Your task to perform on an android device: When is my next meeting? Image 0: 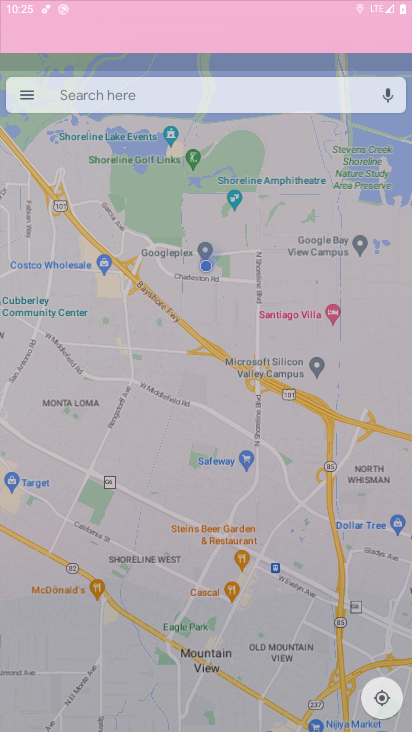
Step 0: press home button
Your task to perform on an android device: When is my next meeting? Image 1: 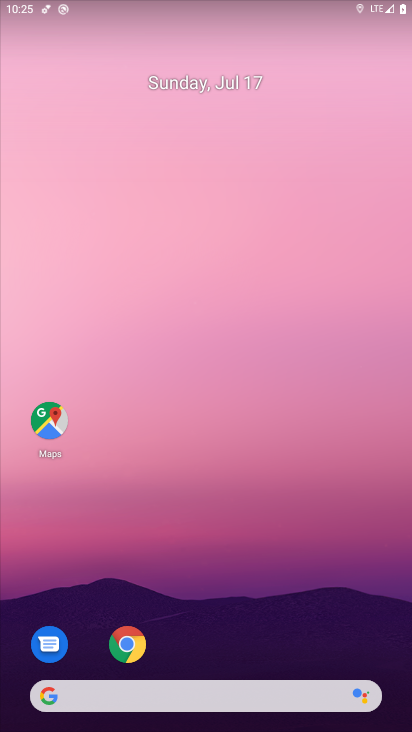
Step 1: drag from (188, 650) to (158, 174)
Your task to perform on an android device: When is my next meeting? Image 2: 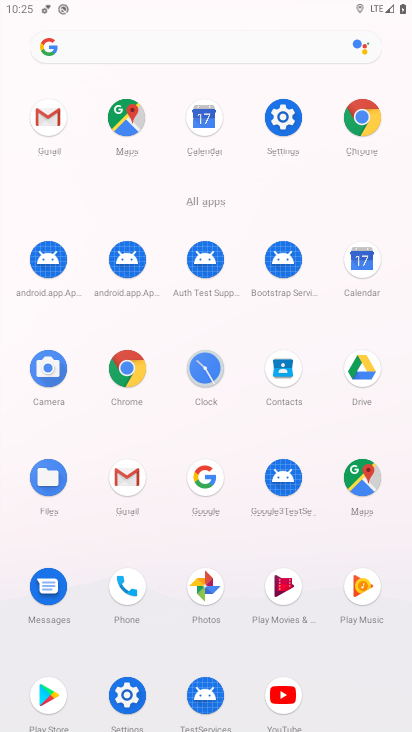
Step 2: click (362, 260)
Your task to perform on an android device: When is my next meeting? Image 3: 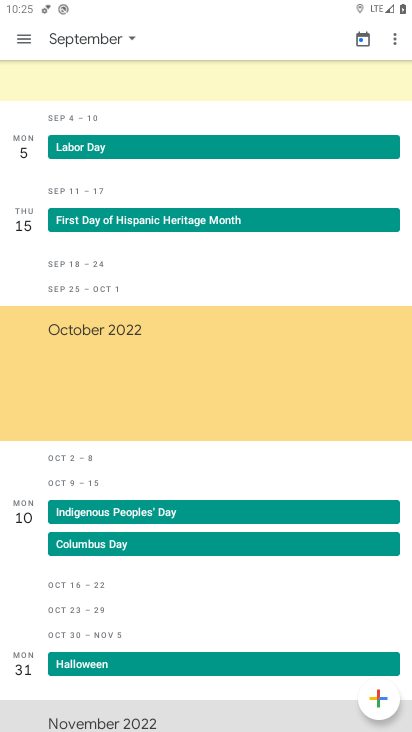
Step 3: click (19, 36)
Your task to perform on an android device: When is my next meeting? Image 4: 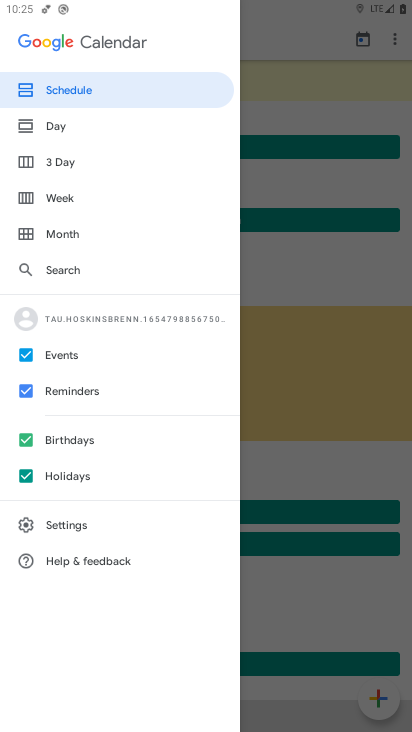
Step 4: click (72, 98)
Your task to perform on an android device: When is my next meeting? Image 5: 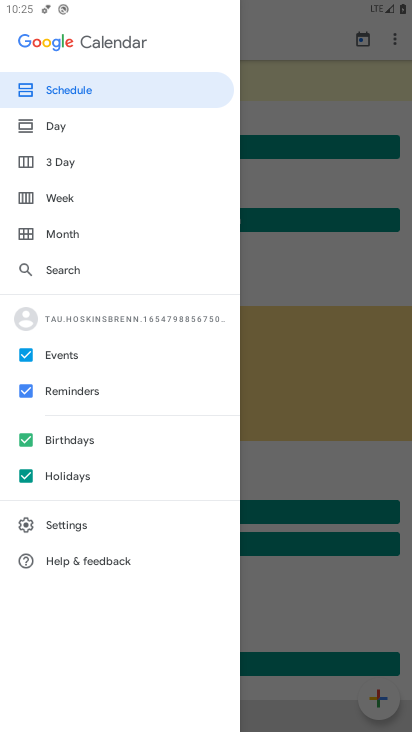
Step 5: click (102, 88)
Your task to perform on an android device: When is my next meeting? Image 6: 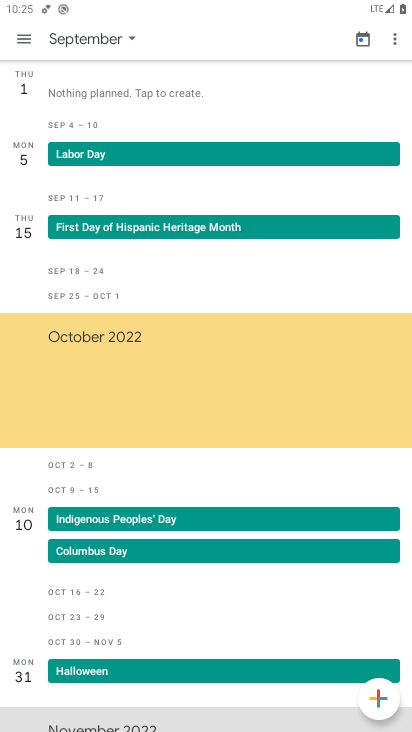
Step 6: task complete